Your task to perform on an android device: Open my contact list Image 0: 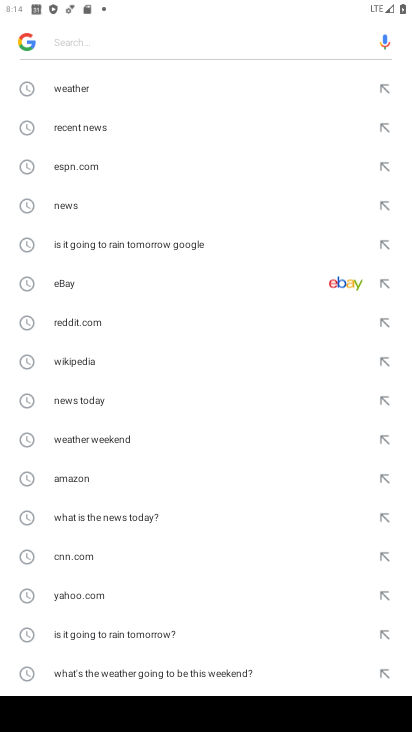
Step 0: press home button
Your task to perform on an android device: Open my contact list Image 1: 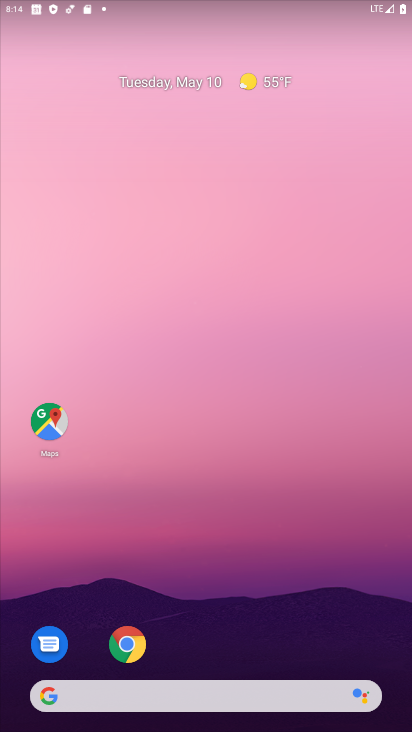
Step 1: drag from (190, 648) to (259, 203)
Your task to perform on an android device: Open my contact list Image 2: 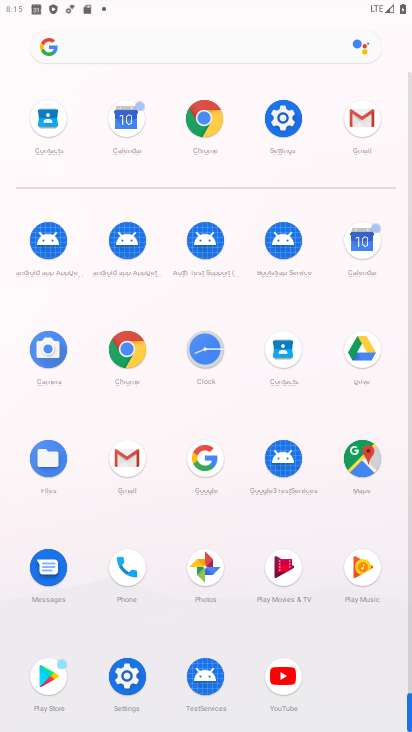
Step 2: click (288, 357)
Your task to perform on an android device: Open my contact list Image 3: 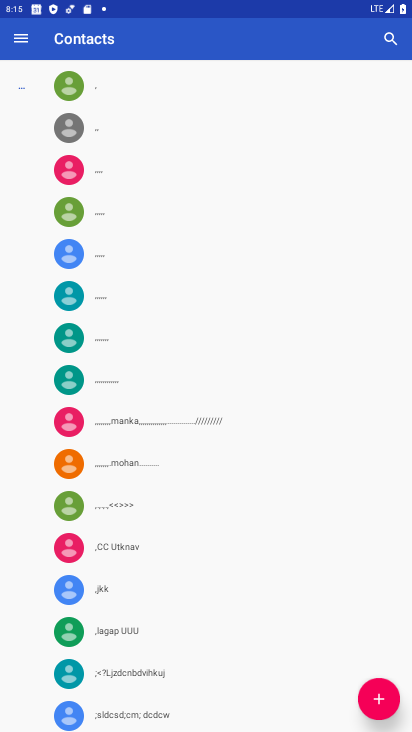
Step 3: task complete